Your task to perform on an android device: Go to Reddit.com Image 0: 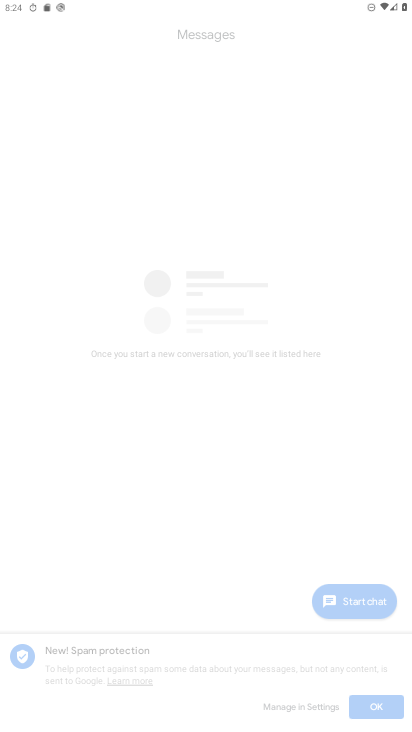
Step 0: drag from (216, 666) to (247, 287)
Your task to perform on an android device: Go to Reddit.com Image 1: 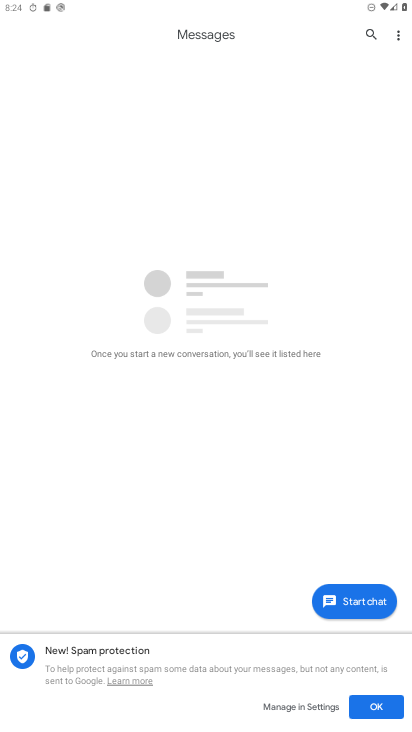
Step 1: press home button
Your task to perform on an android device: Go to Reddit.com Image 2: 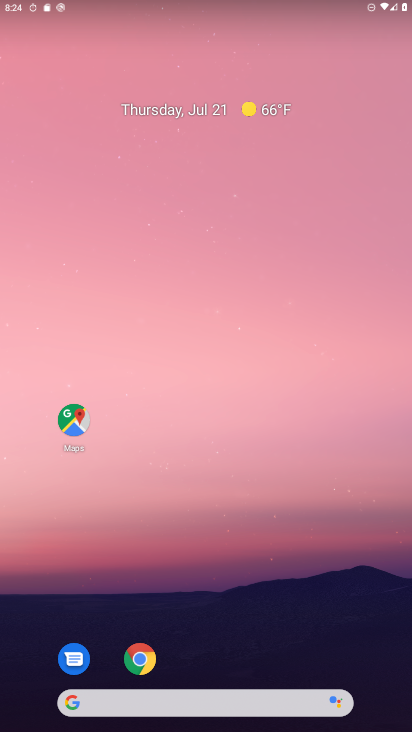
Step 2: drag from (216, 623) to (378, 18)
Your task to perform on an android device: Go to Reddit.com Image 3: 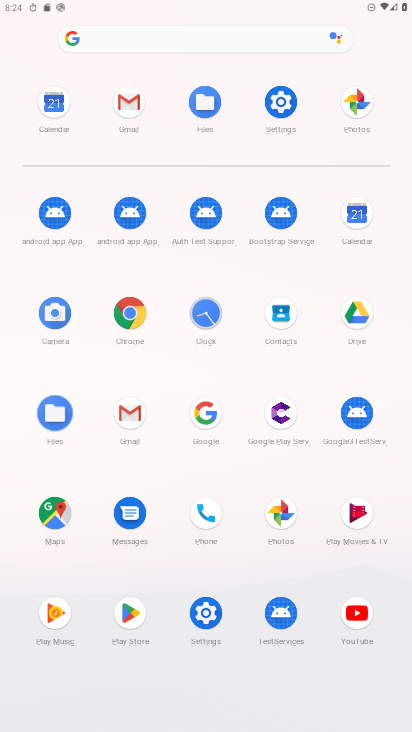
Step 3: click (132, 31)
Your task to perform on an android device: Go to Reddit.com Image 4: 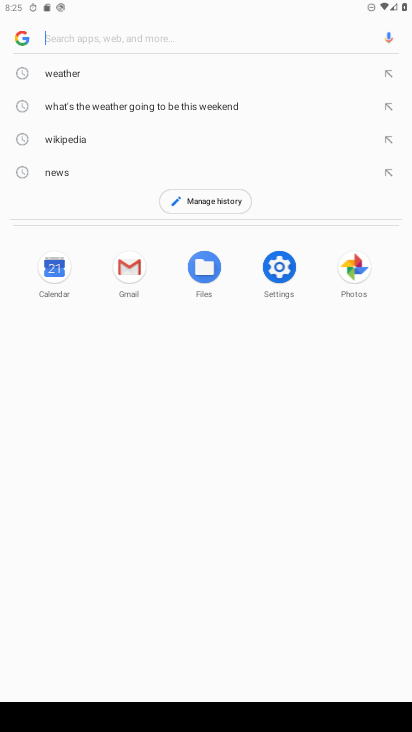
Step 4: type "Reddit.com"
Your task to perform on an android device: Go to Reddit.com Image 5: 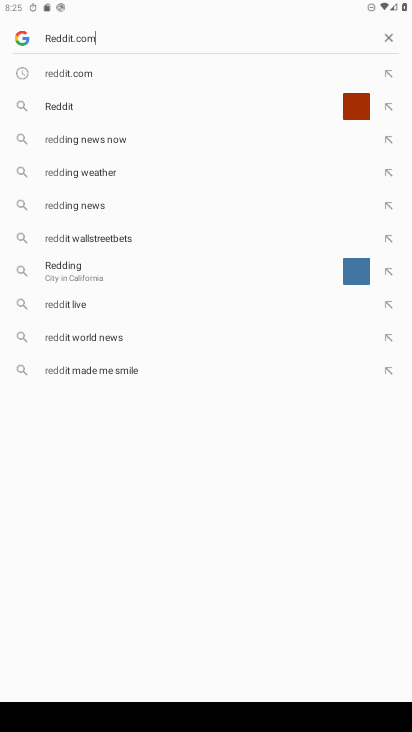
Step 5: type ""
Your task to perform on an android device: Go to Reddit.com Image 6: 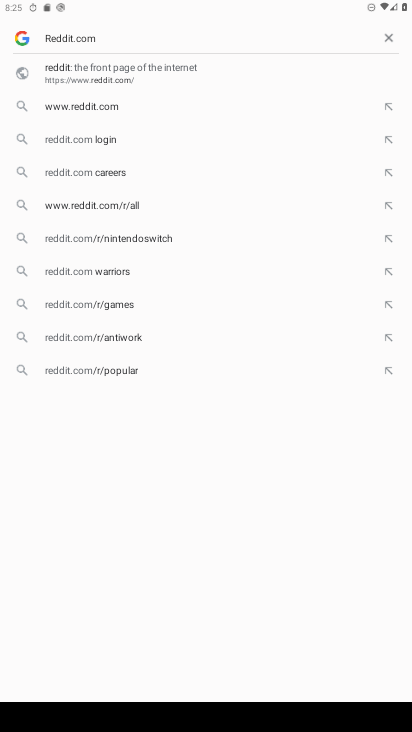
Step 6: click (106, 104)
Your task to perform on an android device: Go to Reddit.com Image 7: 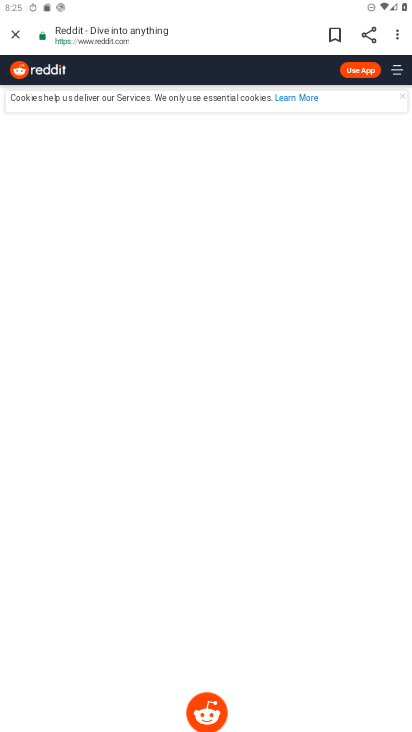
Step 7: task complete